Your task to perform on an android device: Toggle the flashlight Image 0: 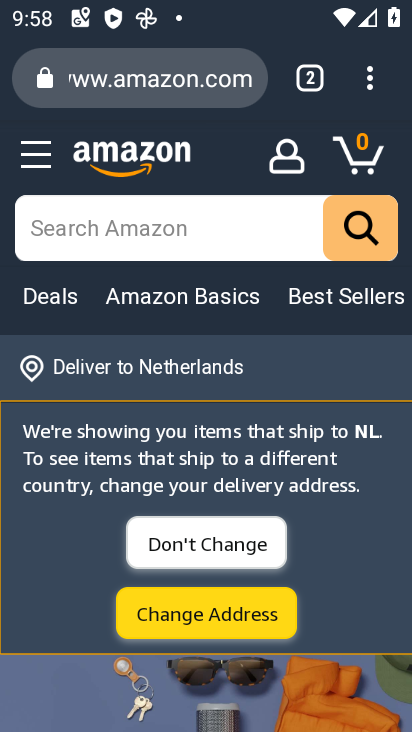
Step 0: press home button
Your task to perform on an android device: Toggle the flashlight Image 1: 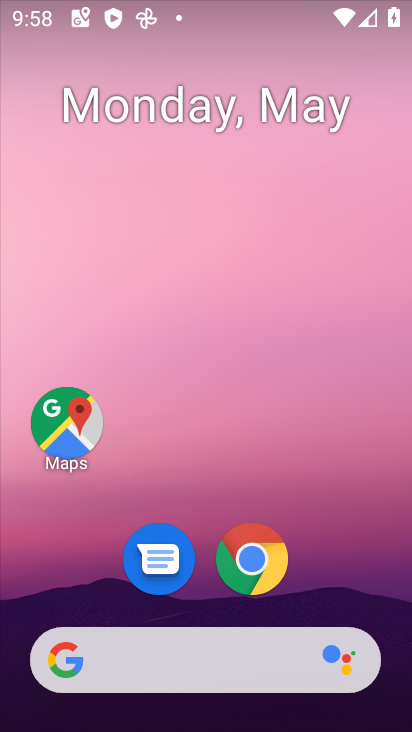
Step 1: drag from (319, 520) to (188, 41)
Your task to perform on an android device: Toggle the flashlight Image 2: 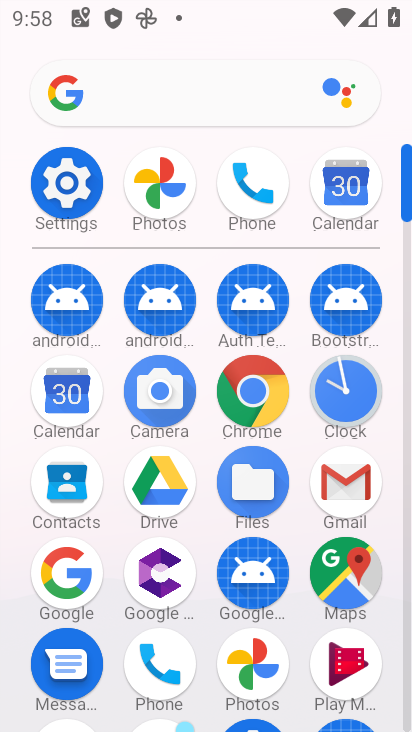
Step 2: click (69, 179)
Your task to perform on an android device: Toggle the flashlight Image 3: 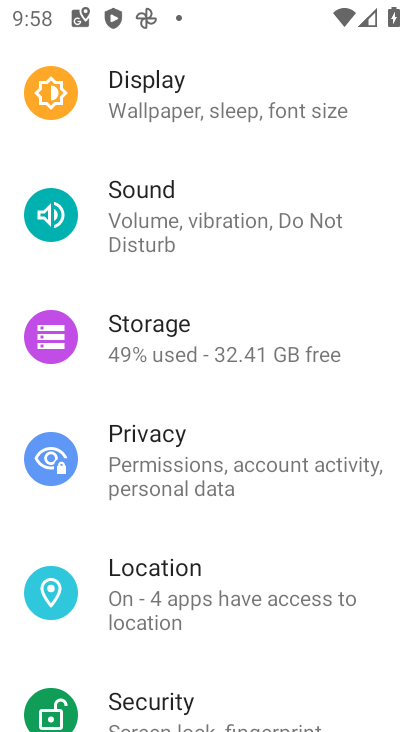
Step 3: drag from (177, 157) to (126, 623)
Your task to perform on an android device: Toggle the flashlight Image 4: 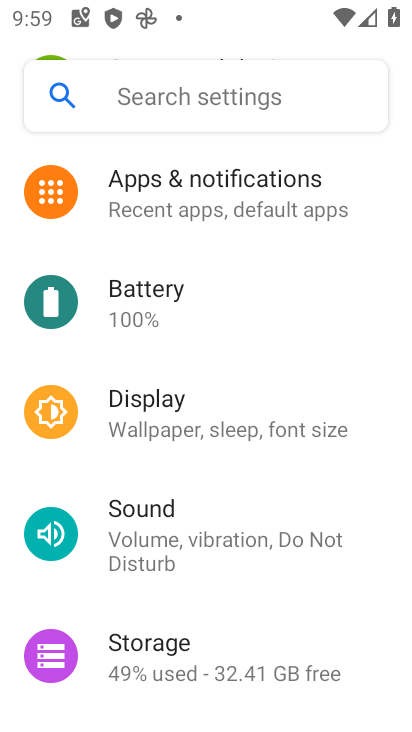
Step 4: click (153, 391)
Your task to perform on an android device: Toggle the flashlight Image 5: 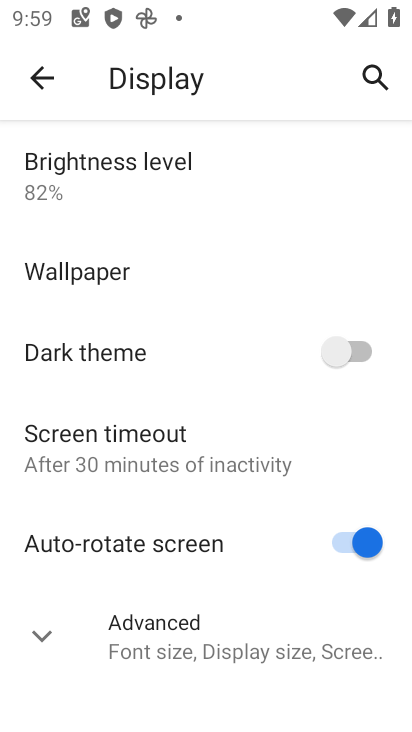
Step 5: click (117, 274)
Your task to perform on an android device: Toggle the flashlight Image 6: 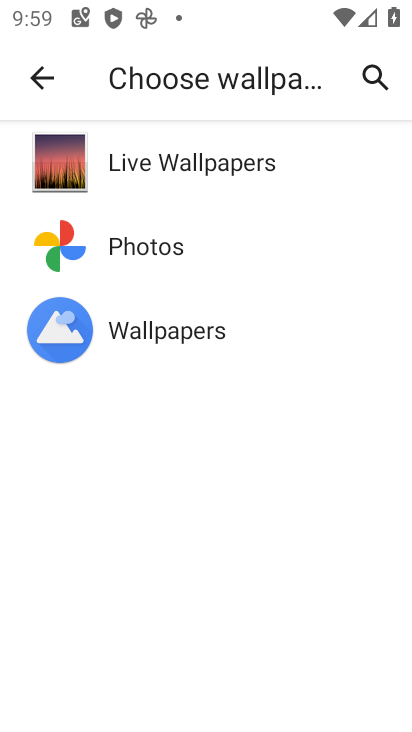
Step 6: task complete